Your task to perform on an android device: Add usb-a to usb-b to the cart on walmart Image 0: 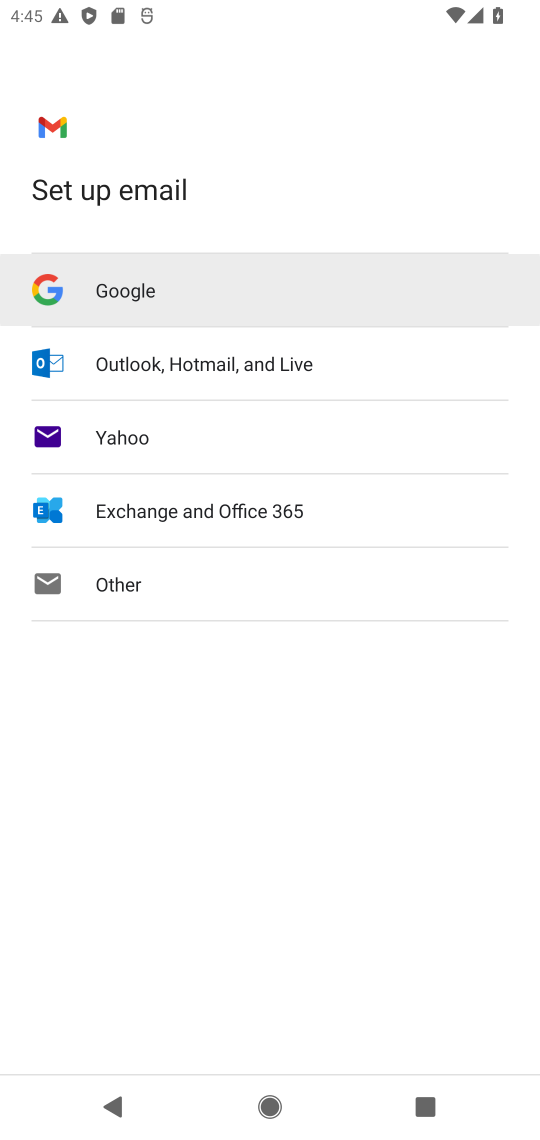
Step 0: press home button
Your task to perform on an android device: Add usb-a to usb-b to the cart on walmart Image 1: 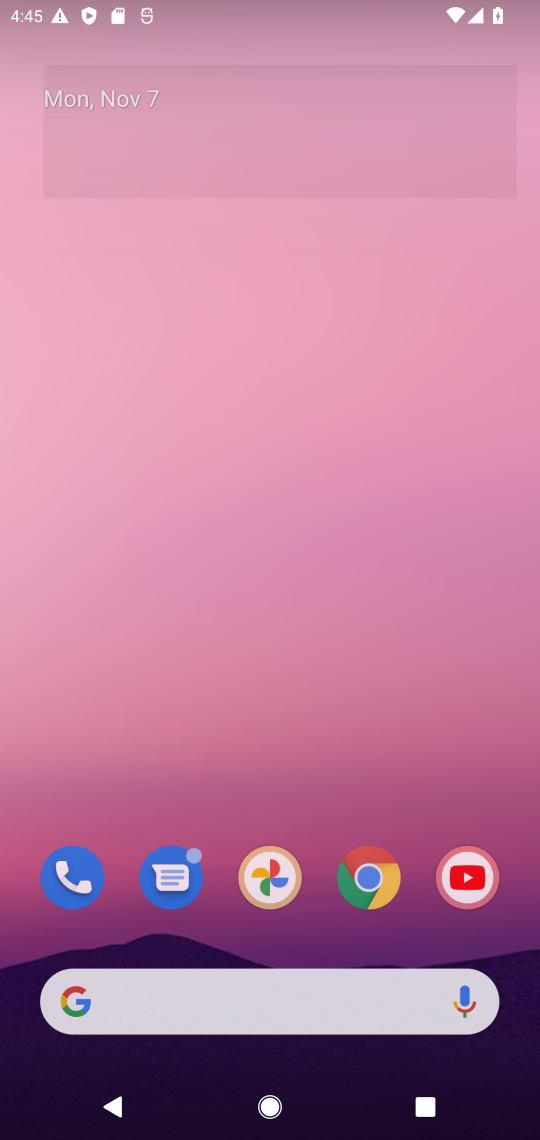
Step 1: press home button
Your task to perform on an android device: Add usb-a to usb-b to the cart on walmart Image 2: 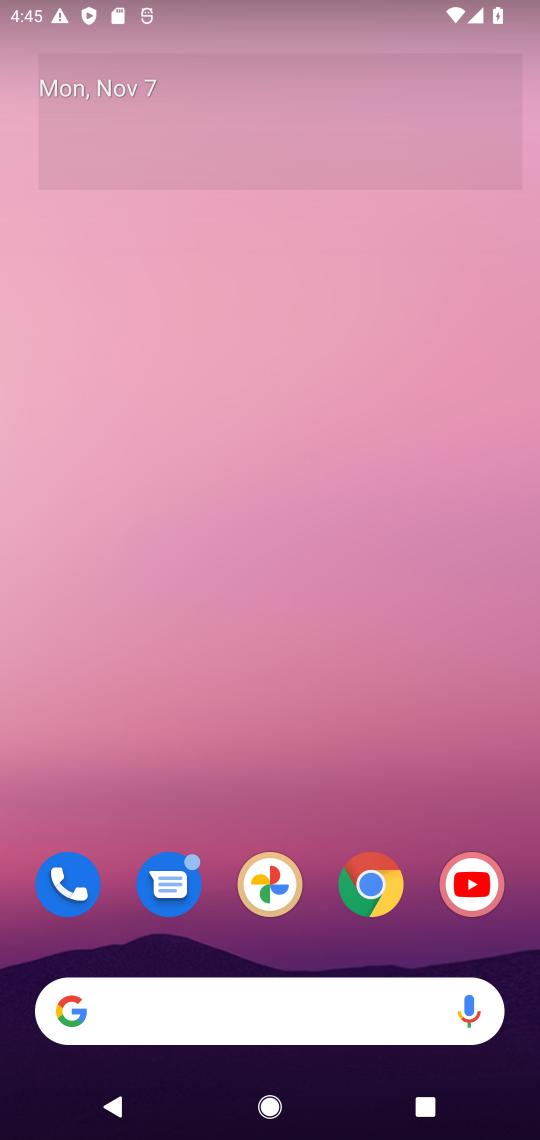
Step 2: drag from (319, 881) to (267, 146)
Your task to perform on an android device: Add usb-a to usb-b to the cart on walmart Image 3: 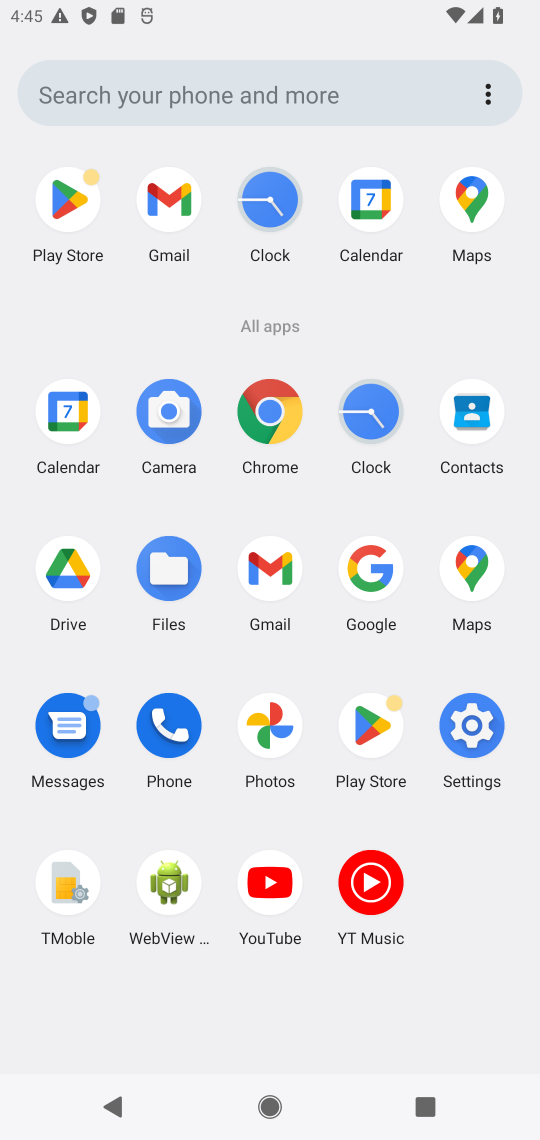
Step 3: click (269, 414)
Your task to perform on an android device: Add usb-a to usb-b to the cart on walmart Image 4: 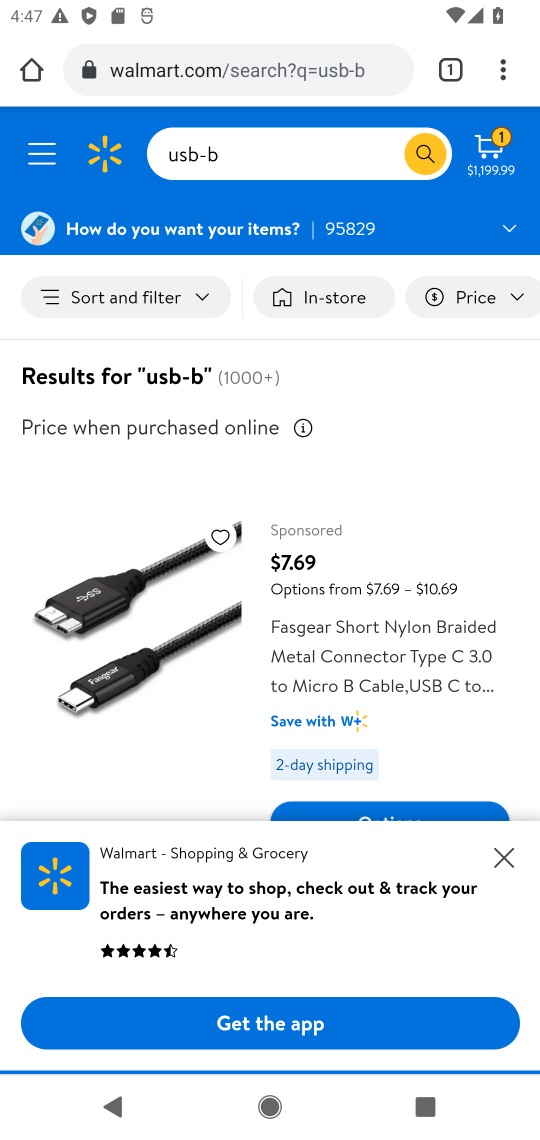
Step 4: click (318, 154)
Your task to perform on an android device: Add usb-a to usb-b to the cart on walmart Image 5: 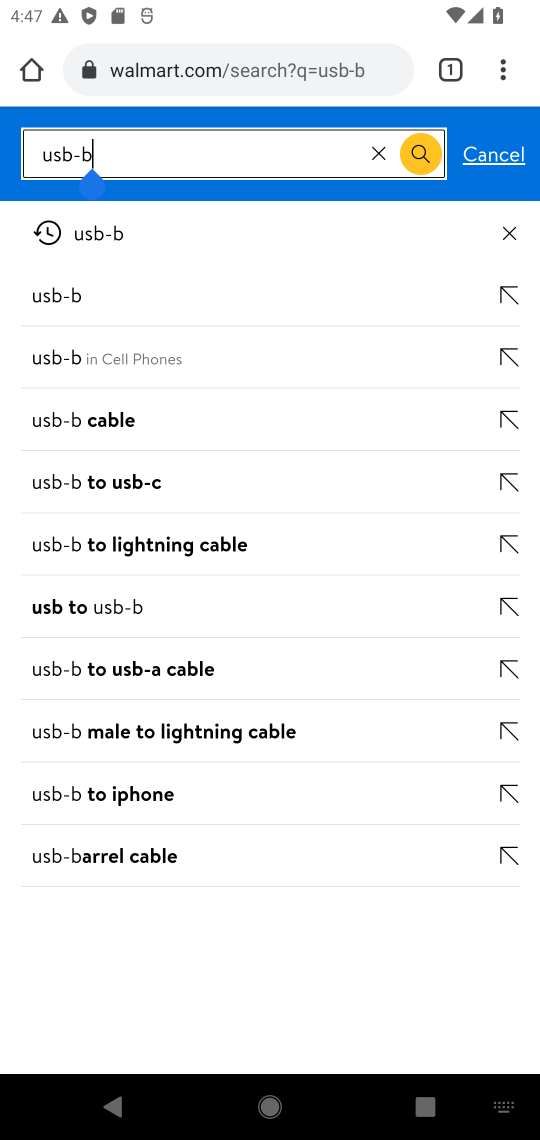
Step 5: click (380, 150)
Your task to perform on an android device: Add usb-a to usb-b to the cart on walmart Image 6: 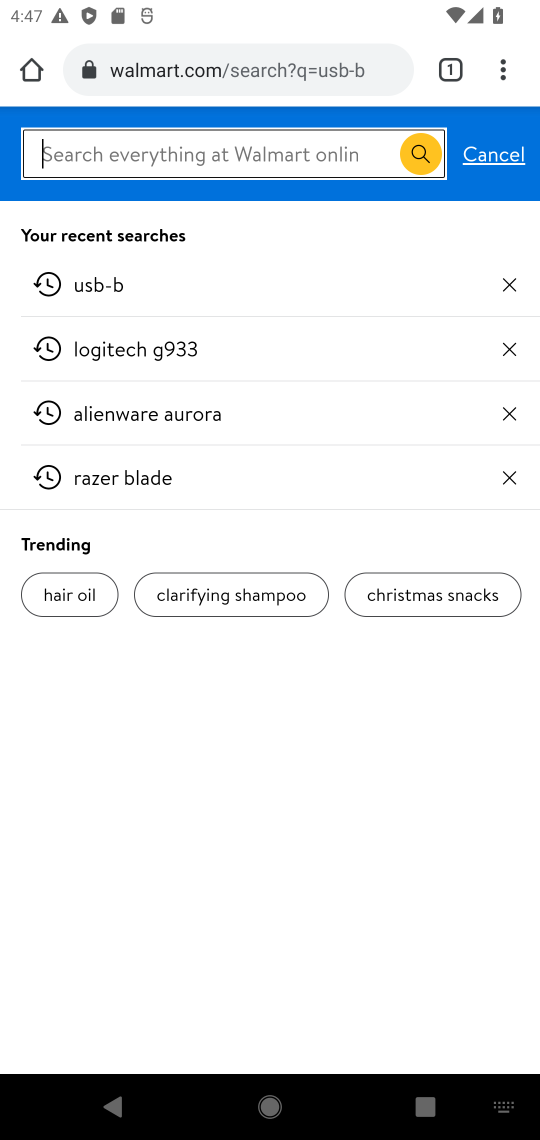
Step 6: type "usb-a to usb-b"
Your task to perform on an android device: Add usb-a to usb-b to the cart on walmart Image 7: 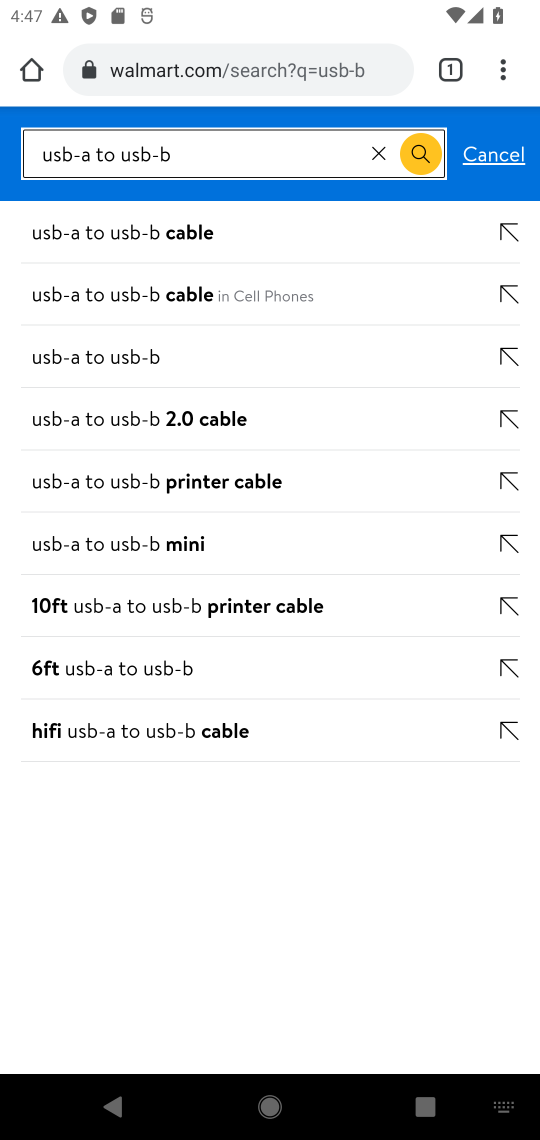
Step 7: press enter
Your task to perform on an android device: Add usb-a to usb-b to the cart on walmart Image 8: 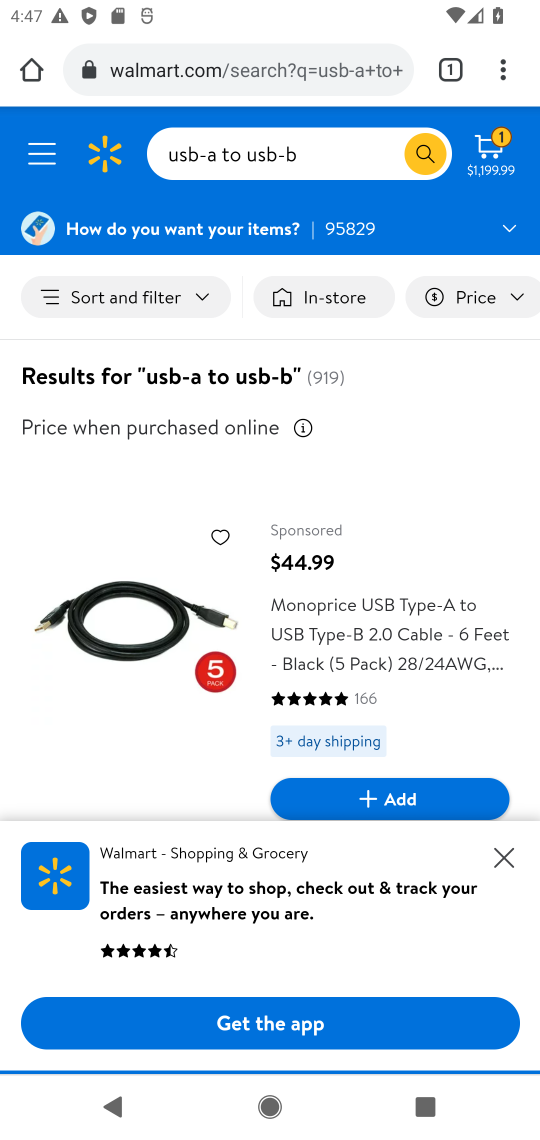
Step 8: drag from (373, 717) to (381, 610)
Your task to perform on an android device: Add usb-a to usb-b to the cart on walmart Image 9: 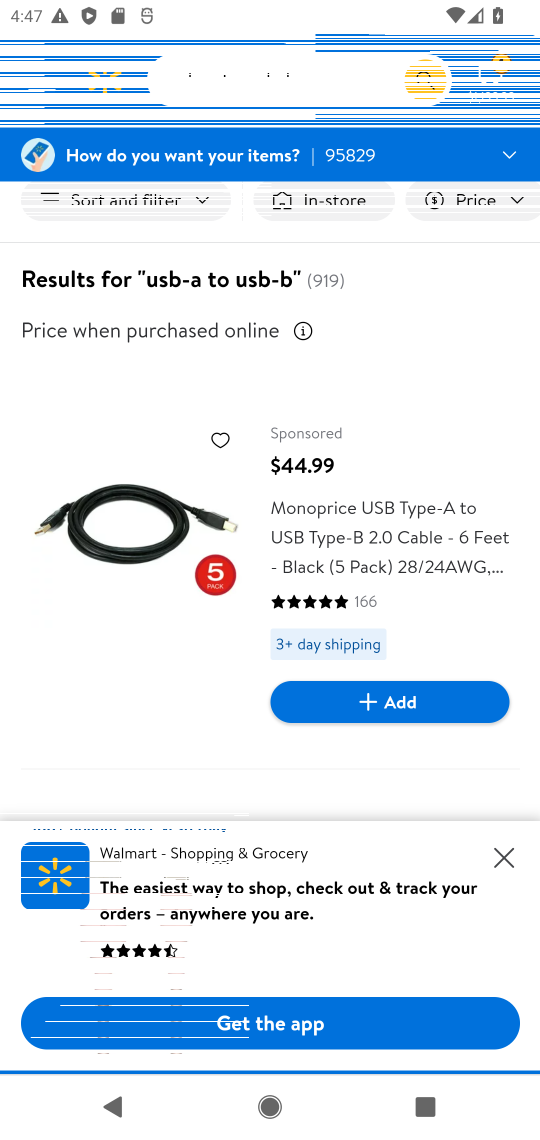
Step 9: click (456, 695)
Your task to perform on an android device: Add usb-a to usb-b to the cart on walmart Image 10: 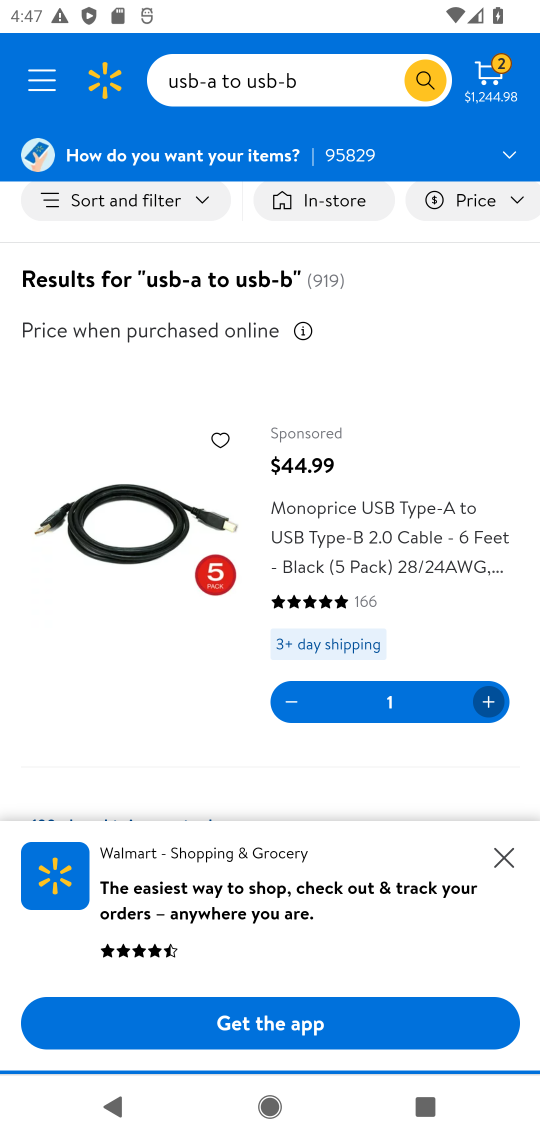
Step 10: task complete